Your task to perform on an android device: What is the news today? Image 0: 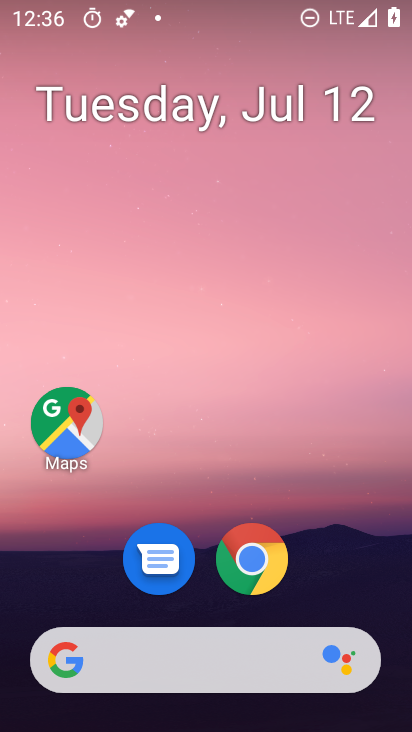
Step 0: click (146, 655)
Your task to perform on an android device: What is the news today? Image 1: 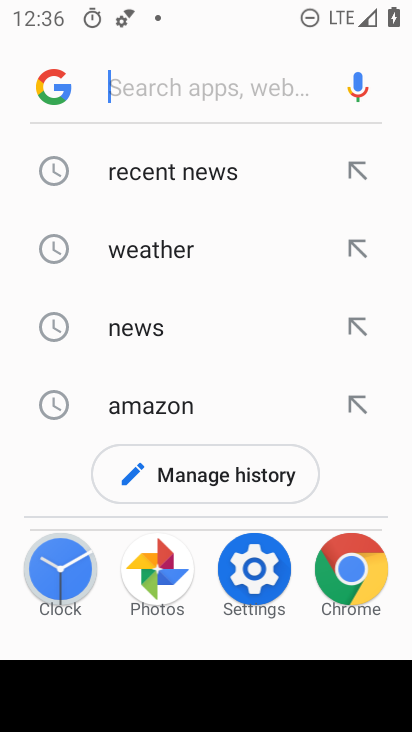
Step 1: click (169, 94)
Your task to perform on an android device: What is the news today? Image 2: 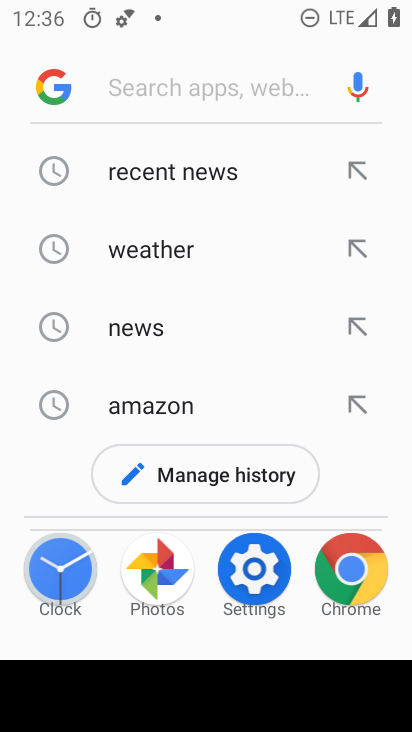
Step 2: type "news today"
Your task to perform on an android device: What is the news today? Image 3: 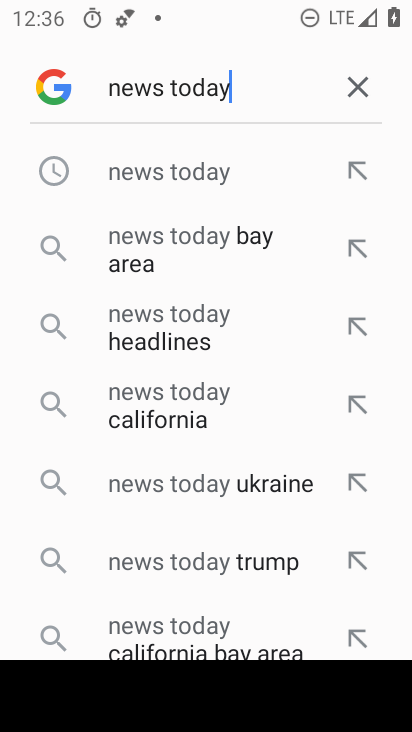
Step 3: click (171, 172)
Your task to perform on an android device: What is the news today? Image 4: 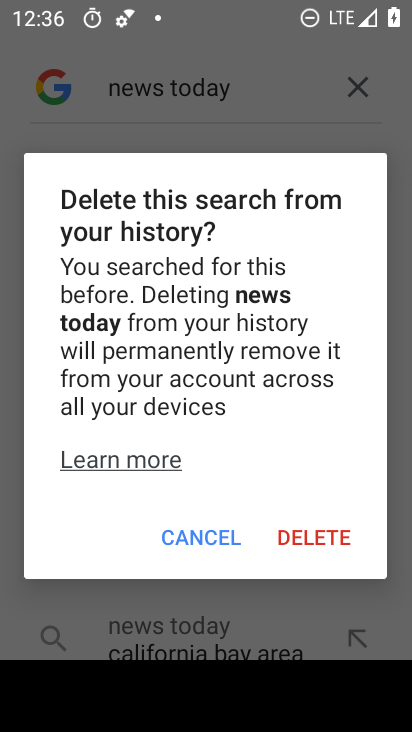
Step 4: click (205, 537)
Your task to perform on an android device: What is the news today? Image 5: 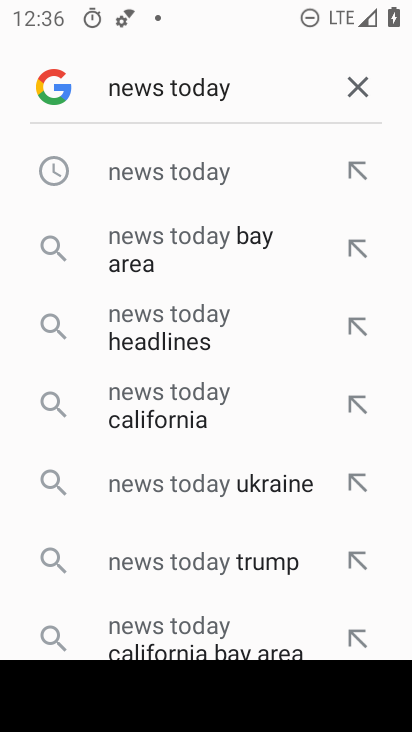
Step 5: click (205, 160)
Your task to perform on an android device: What is the news today? Image 6: 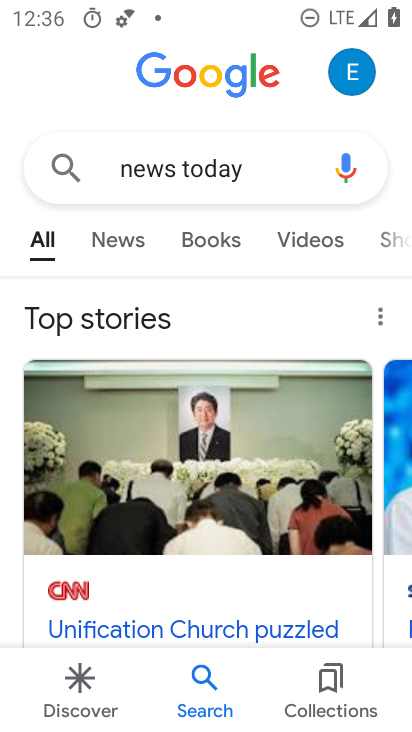
Step 6: task complete